Your task to perform on an android device: Open sound settings Image 0: 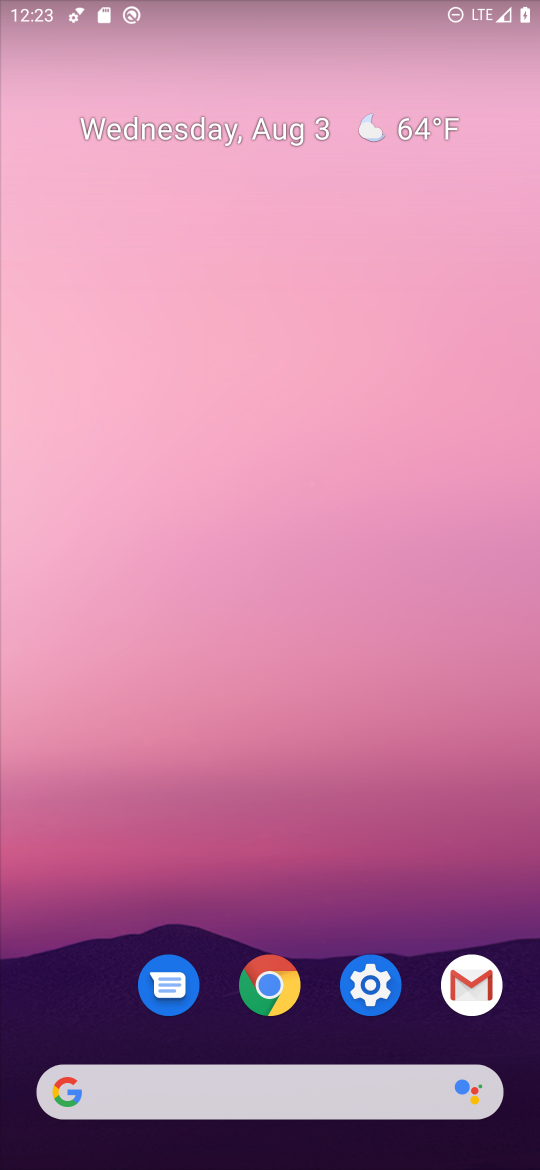
Step 0: click (371, 981)
Your task to perform on an android device: Open sound settings Image 1: 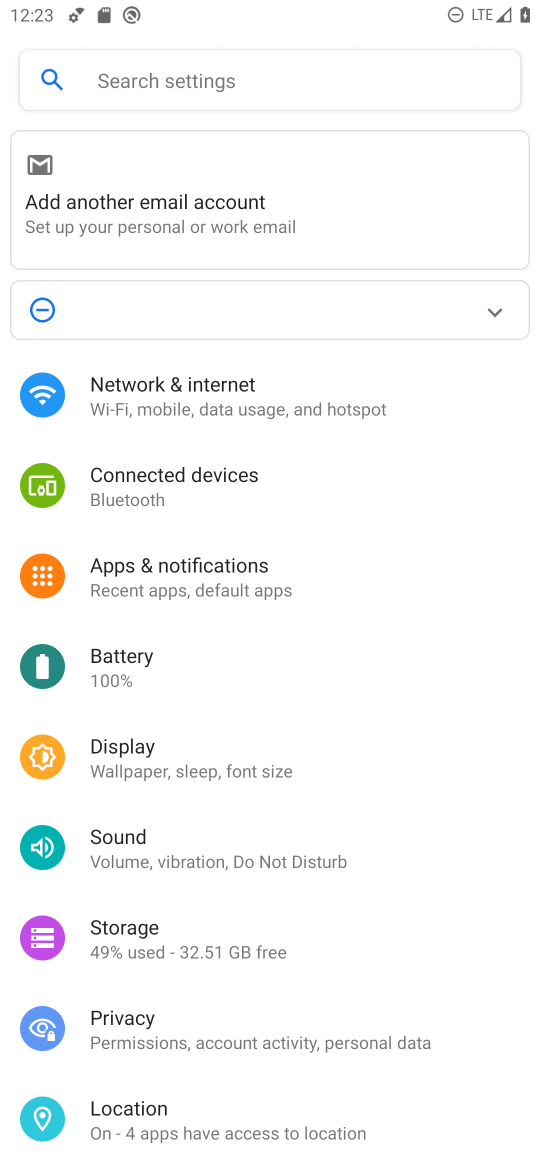
Step 1: click (124, 858)
Your task to perform on an android device: Open sound settings Image 2: 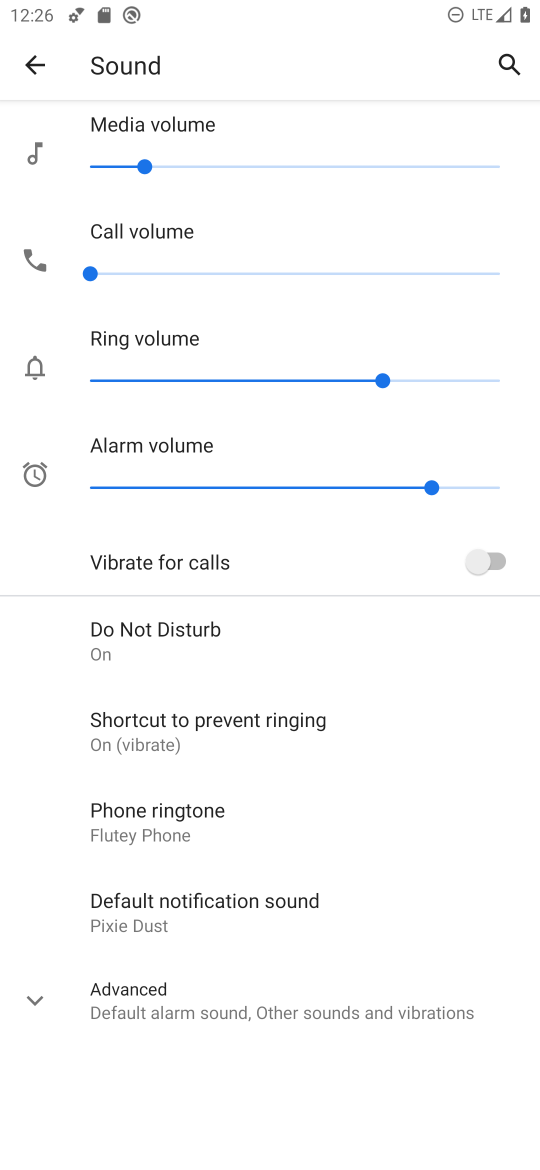
Step 2: task complete